Your task to perform on an android device: set an alarm Image 0: 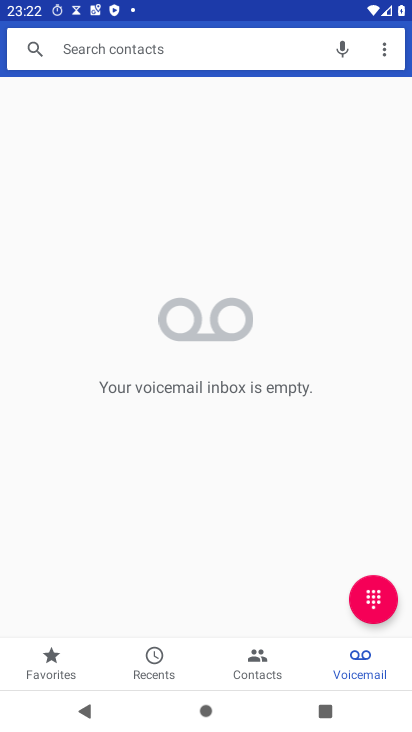
Step 0: press home button
Your task to perform on an android device: set an alarm Image 1: 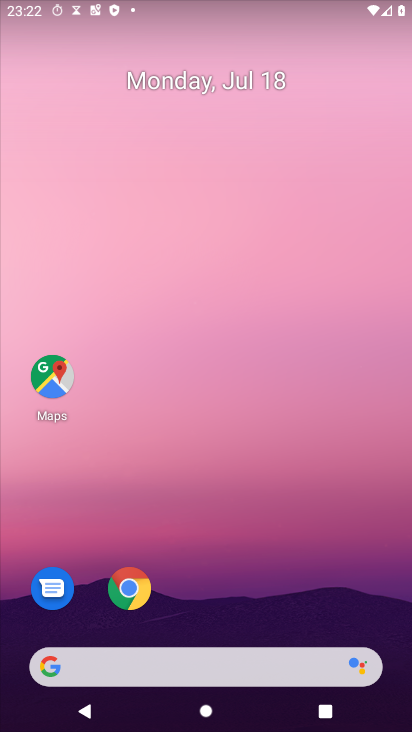
Step 1: drag from (176, 663) to (270, 142)
Your task to perform on an android device: set an alarm Image 2: 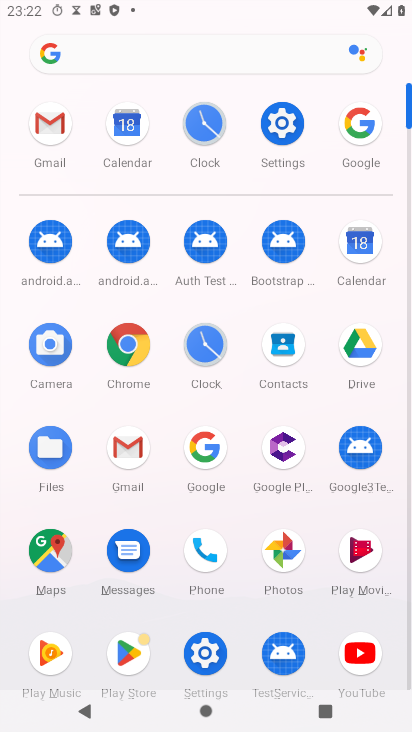
Step 2: click (200, 132)
Your task to perform on an android device: set an alarm Image 3: 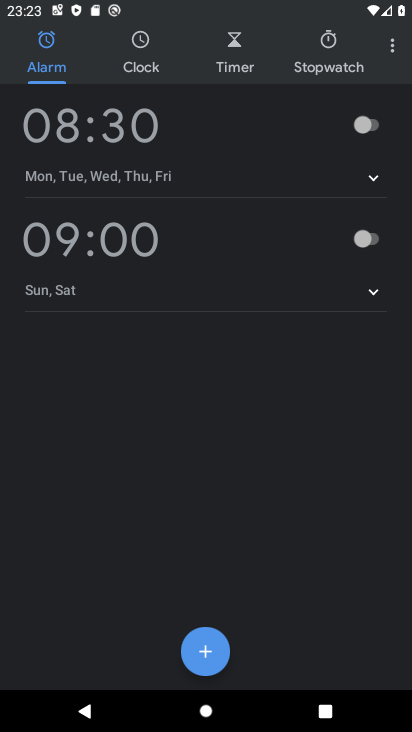
Step 3: click (374, 127)
Your task to perform on an android device: set an alarm Image 4: 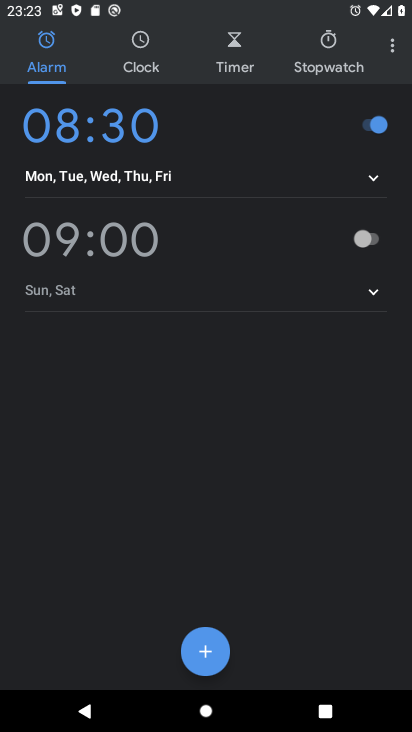
Step 4: task complete